Your task to perform on an android device: change alarm snooze length Image 0: 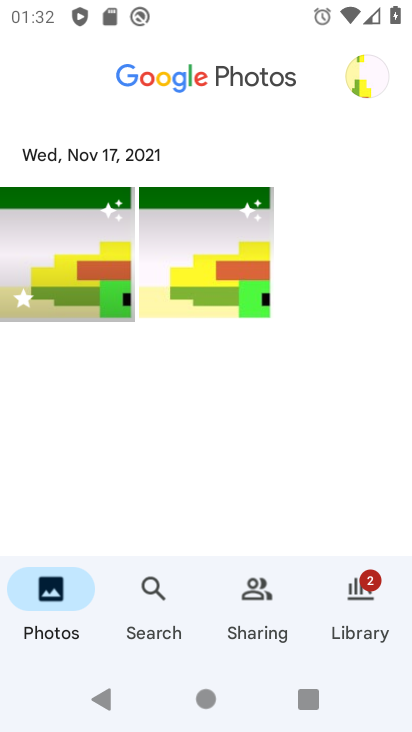
Step 0: press home button
Your task to perform on an android device: change alarm snooze length Image 1: 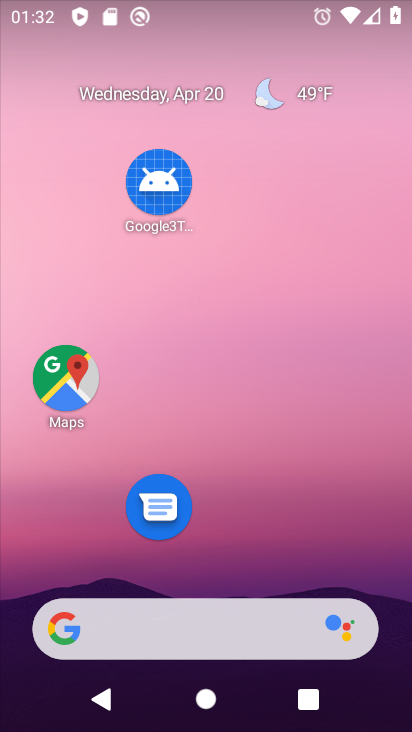
Step 1: drag from (246, 511) to (10, 460)
Your task to perform on an android device: change alarm snooze length Image 2: 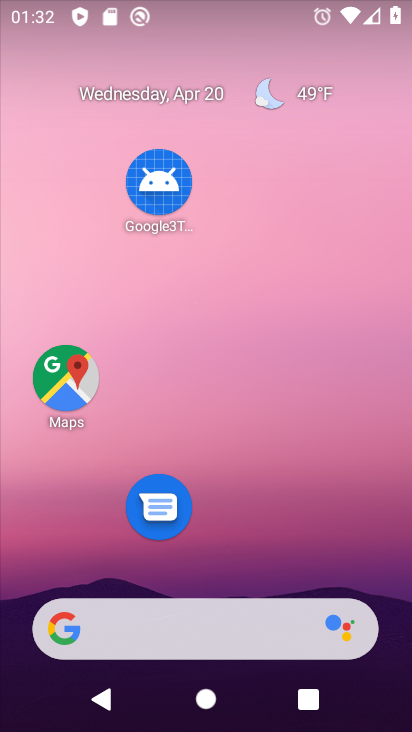
Step 2: drag from (253, 558) to (95, 8)
Your task to perform on an android device: change alarm snooze length Image 3: 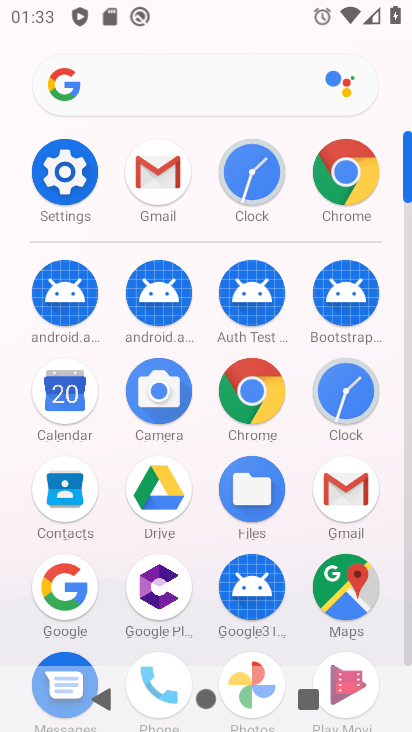
Step 3: click (356, 382)
Your task to perform on an android device: change alarm snooze length Image 4: 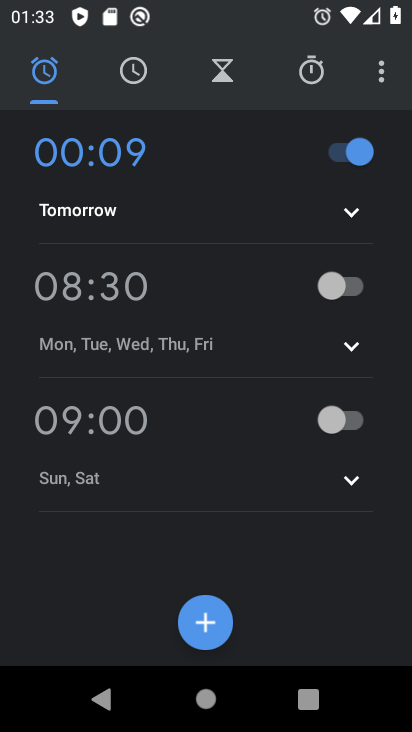
Step 4: click (373, 70)
Your task to perform on an android device: change alarm snooze length Image 5: 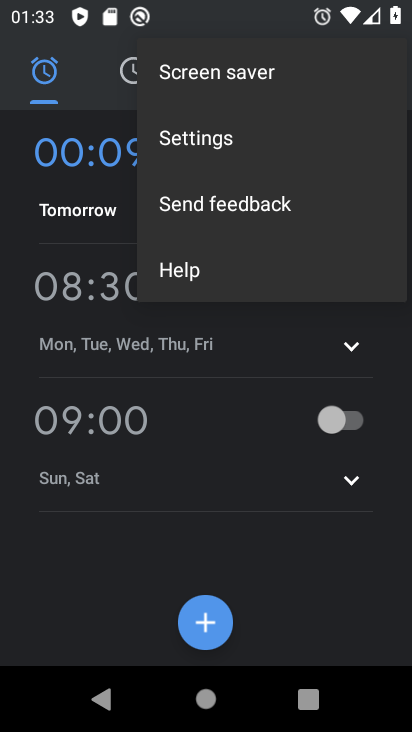
Step 5: click (206, 145)
Your task to perform on an android device: change alarm snooze length Image 6: 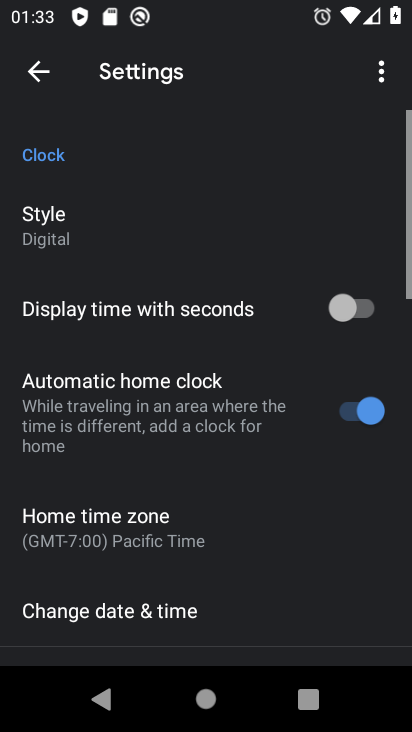
Step 6: drag from (231, 519) to (238, 129)
Your task to perform on an android device: change alarm snooze length Image 7: 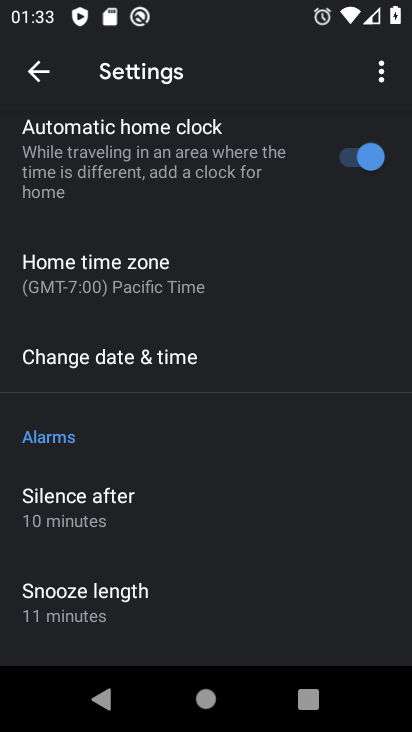
Step 7: drag from (264, 487) to (269, 94)
Your task to perform on an android device: change alarm snooze length Image 8: 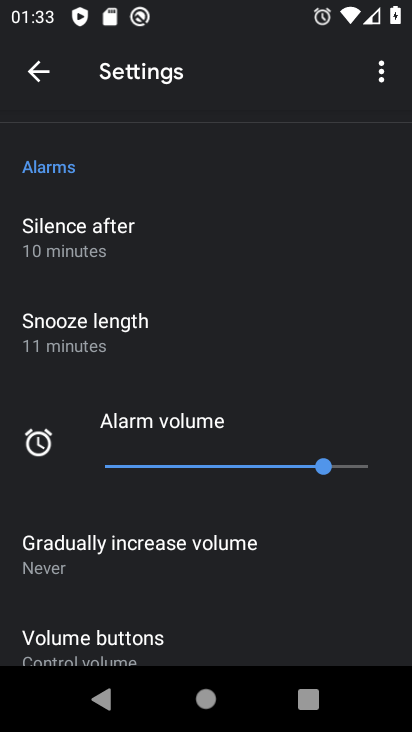
Step 8: drag from (223, 557) to (183, 210)
Your task to perform on an android device: change alarm snooze length Image 9: 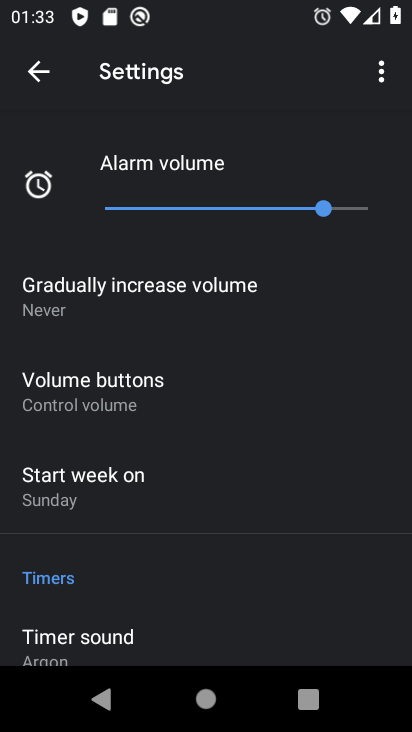
Step 9: drag from (205, 553) to (199, 202)
Your task to perform on an android device: change alarm snooze length Image 10: 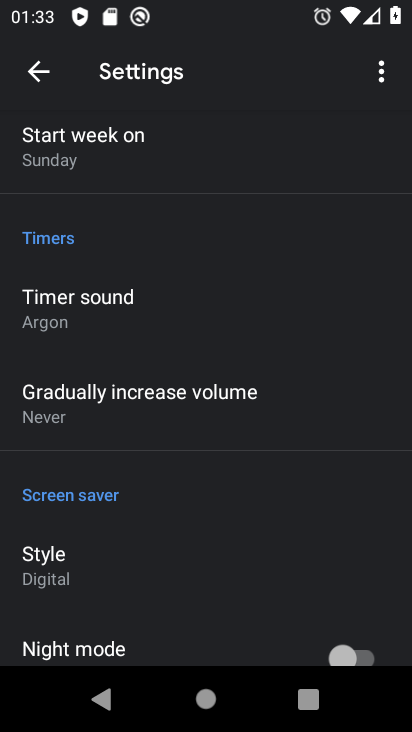
Step 10: drag from (177, 563) to (184, 262)
Your task to perform on an android device: change alarm snooze length Image 11: 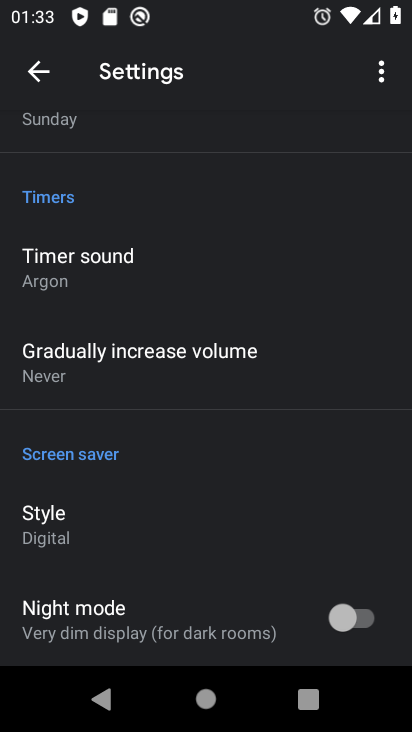
Step 11: drag from (146, 557) to (128, 276)
Your task to perform on an android device: change alarm snooze length Image 12: 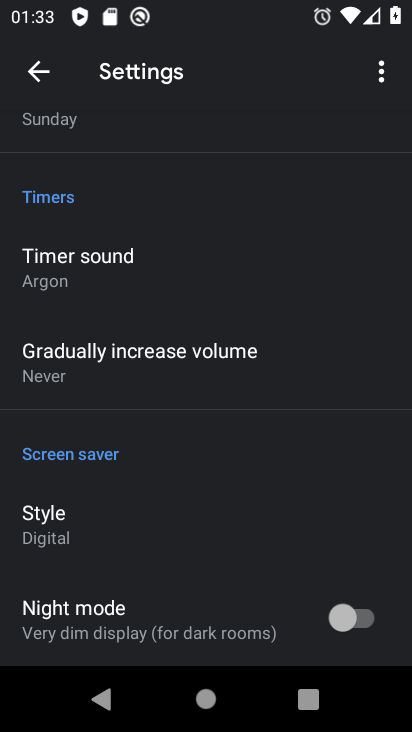
Step 12: drag from (190, 192) to (171, 647)
Your task to perform on an android device: change alarm snooze length Image 13: 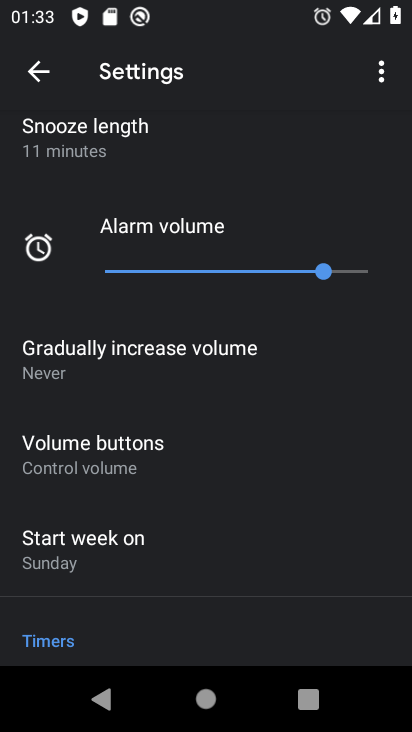
Step 13: drag from (188, 182) to (191, 652)
Your task to perform on an android device: change alarm snooze length Image 14: 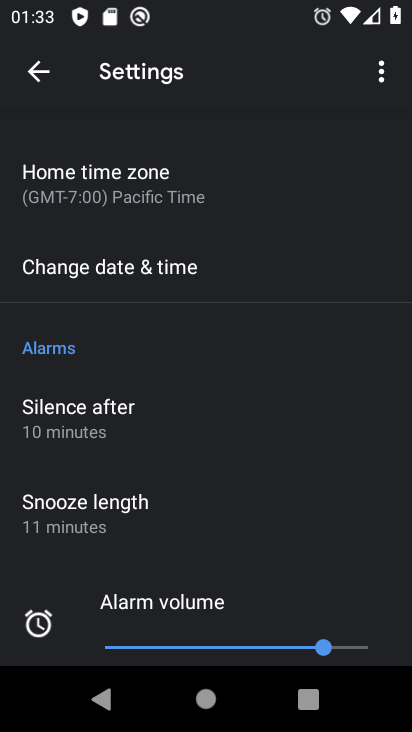
Step 14: click (112, 502)
Your task to perform on an android device: change alarm snooze length Image 15: 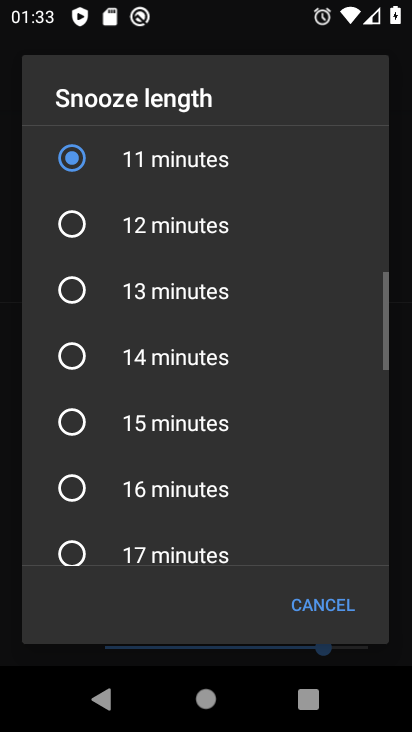
Step 15: click (82, 301)
Your task to perform on an android device: change alarm snooze length Image 16: 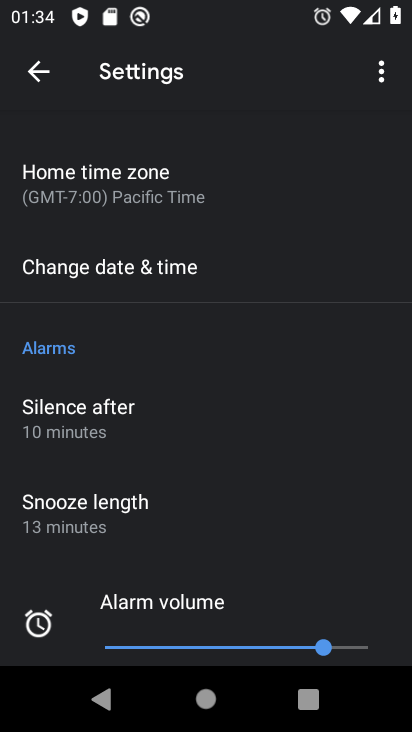
Step 16: task complete